Your task to perform on an android device: turn notification dots off Image 0: 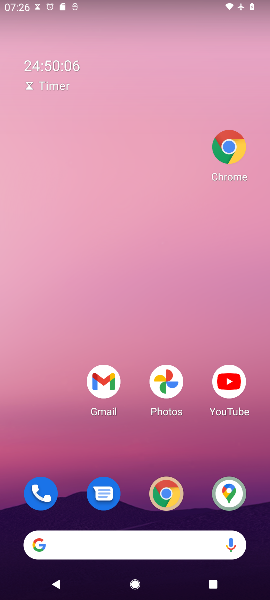
Step 0: press home button
Your task to perform on an android device: turn notification dots off Image 1: 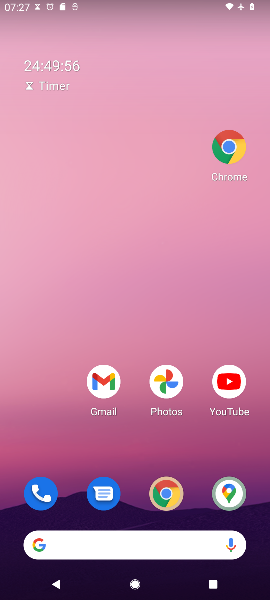
Step 1: drag from (126, 517) to (130, 166)
Your task to perform on an android device: turn notification dots off Image 2: 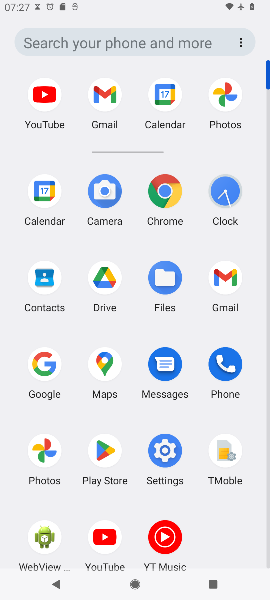
Step 2: click (164, 472)
Your task to perform on an android device: turn notification dots off Image 3: 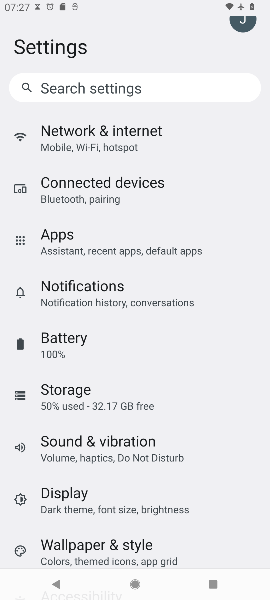
Step 3: click (73, 294)
Your task to perform on an android device: turn notification dots off Image 4: 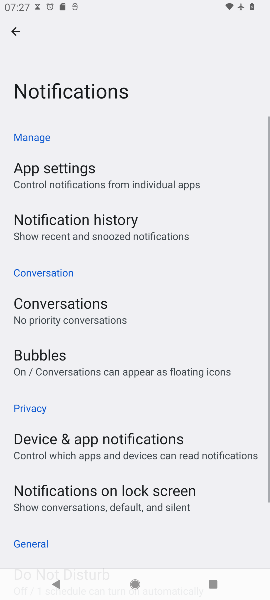
Step 4: drag from (212, 522) to (205, 111)
Your task to perform on an android device: turn notification dots off Image 5: 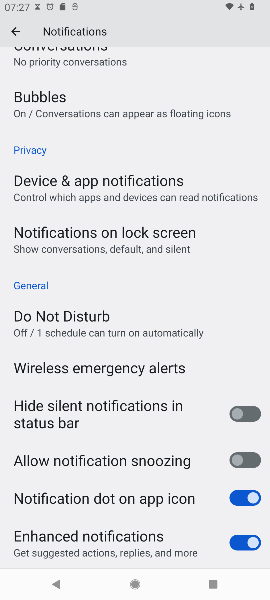
Step 5: click (257, 496)
Your task to perform on an android device: turn notification dots off Image 6: 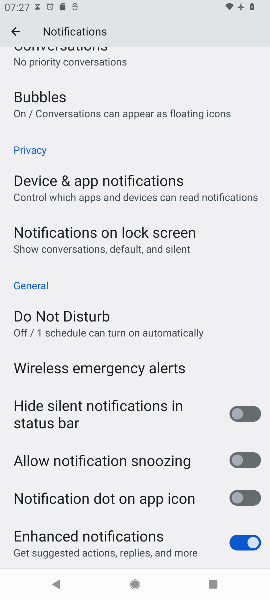
Step 6: task complete